Your task to perform on an android device: turn off airplane mode Image 0: 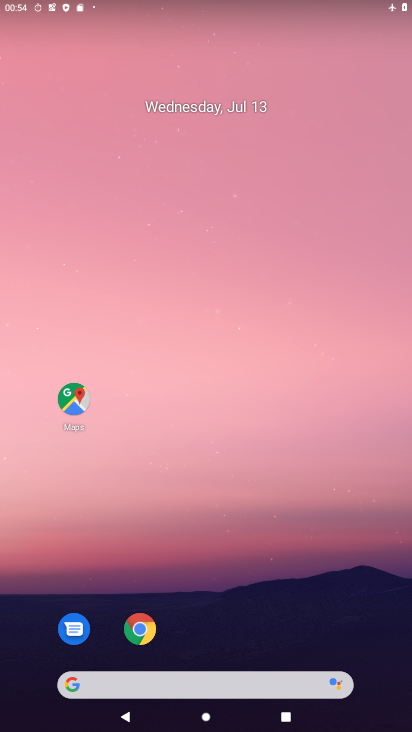
Step 0: drag from (201, 224) to (196, 189)
Your task to perform on an android device: turn off airplane mode Image 1: 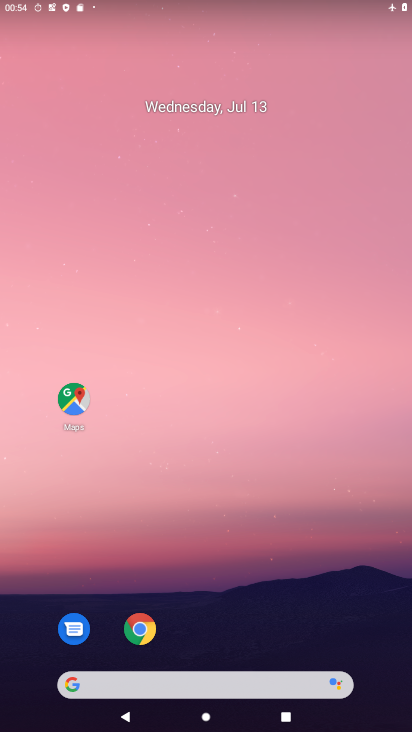
Step 1: drag from (189, 645) to (185, 182)
Your task to perform on an android device: turn off airplane mode Image 2: 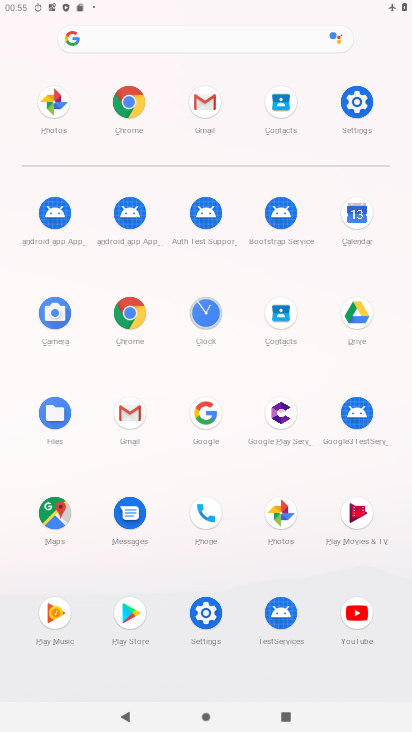
Step 2: click (345, 109)
Your task to perform on an android device: turn off airplane mode Image 3: 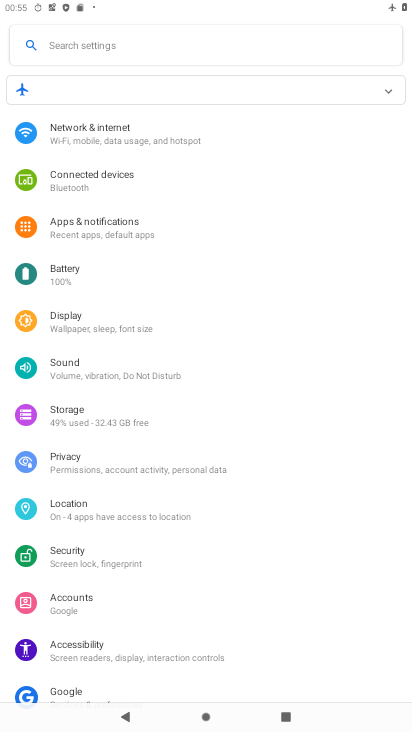
Step 3: click (108, 143)
Your task to perform on an android device: turn off airplane mode Image 4: 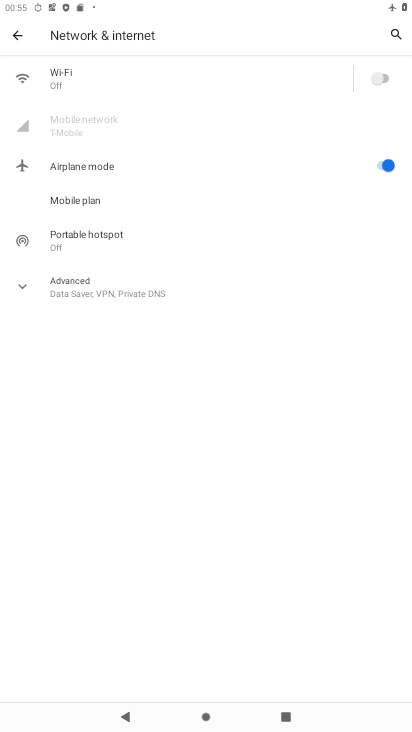
Step 4: click (373, 170)
Your task to perform on an android device: turn off airplane mode Image 5: 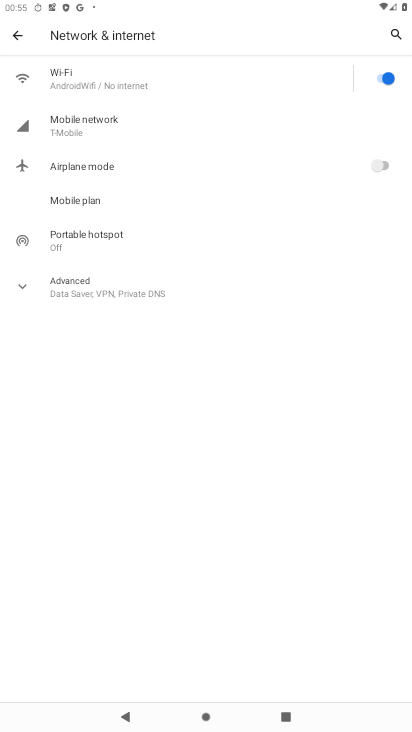
Step 5: task complete